Your task to perform on an android device: Find coffee shops on Maps Image 0: 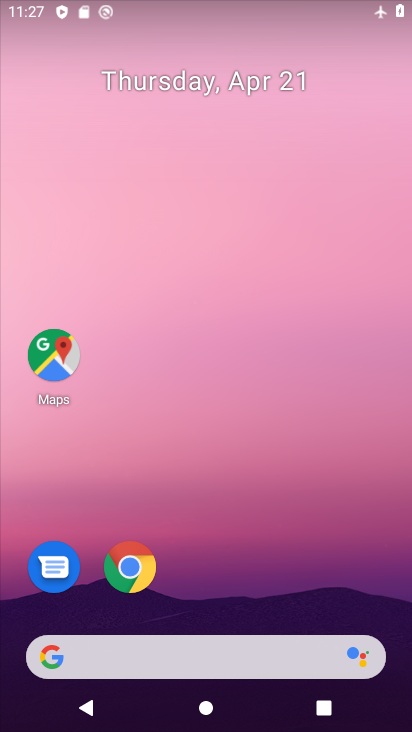
Step 0: drag from (358, 579) to (364, 132)
Your task to perform on an android device: Find coffee shops on Maps Image 1: 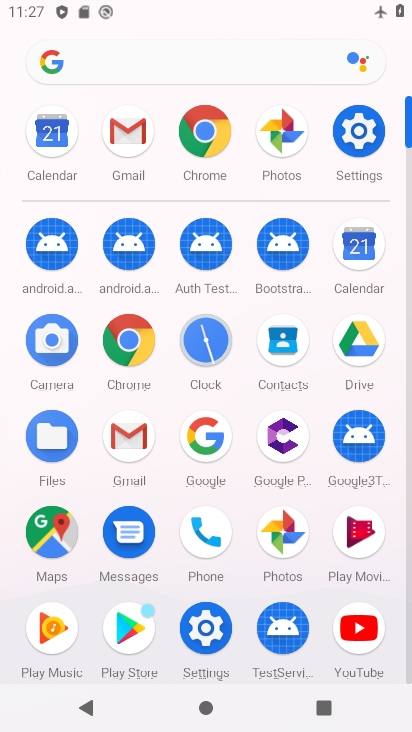
Step 1: click (64, 555)
Your task to perform on an android device: Find coffee shops on Maps Image 2: 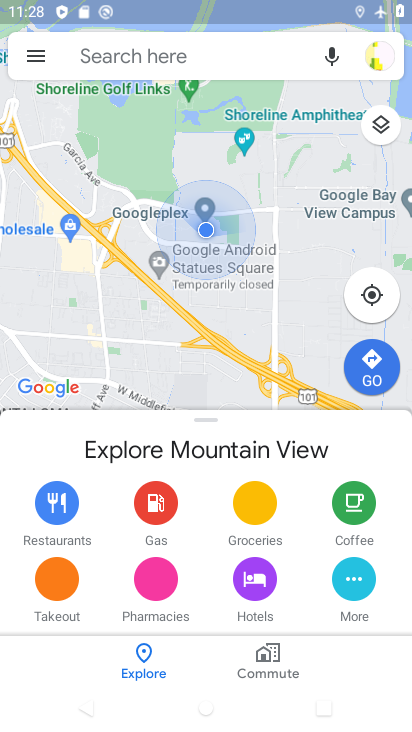
Step 2: click (171, 69)
Your task to perform on an android device: Find coffee shops on Maps Image 3: 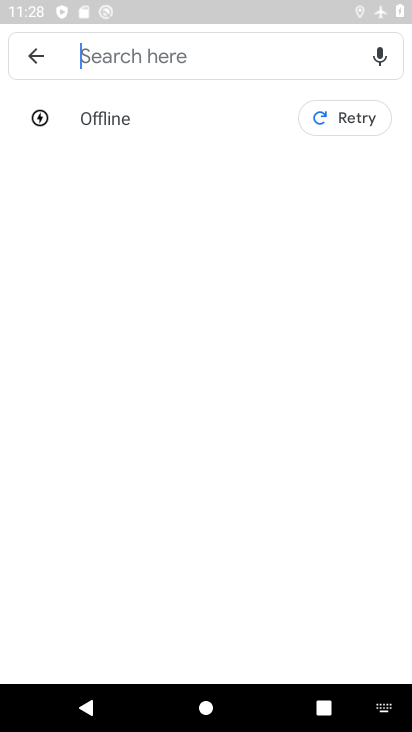
Step 3: type "coffee shops"
Your task to perform on an android device: Find coffee shops on Maps Image 4: 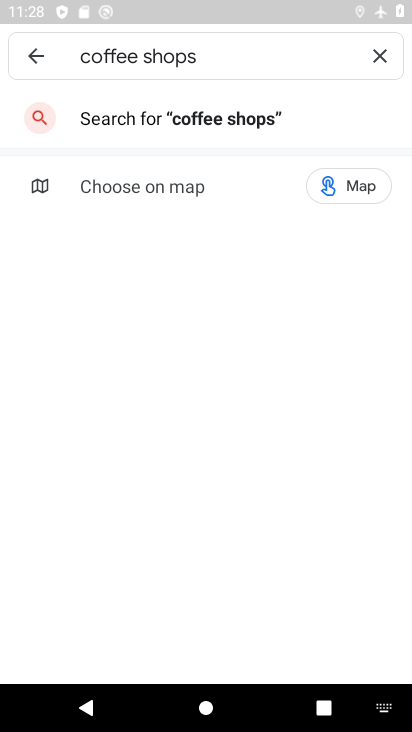
Step 4: click (199, 118)
Your task to perform on an android device: Find coffee shops on Maps Image 5: 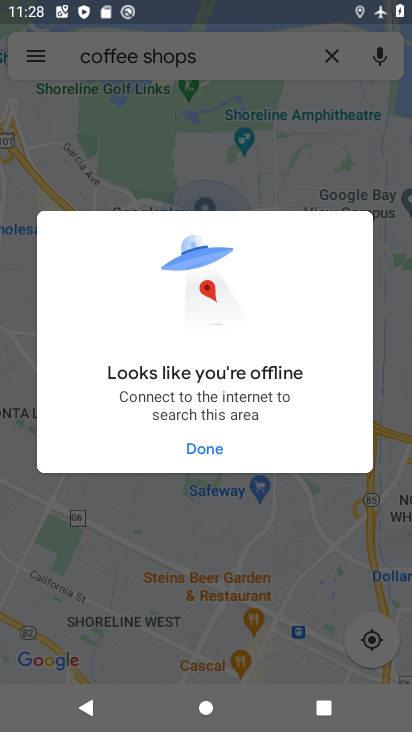
Step 5: task complete